Your task to perform on an android device: refresh tabs in the chrome app Image 0: 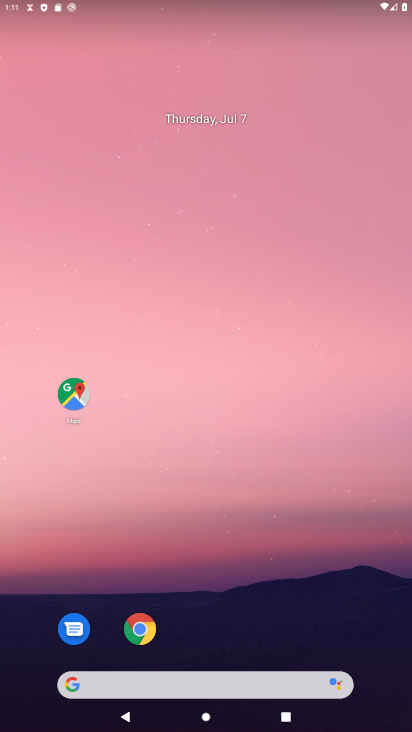
Step 0: drag from (241, 621) to (248, 110)
Your task to perform on an android device: refresh tabs in the chrome app Image 1: 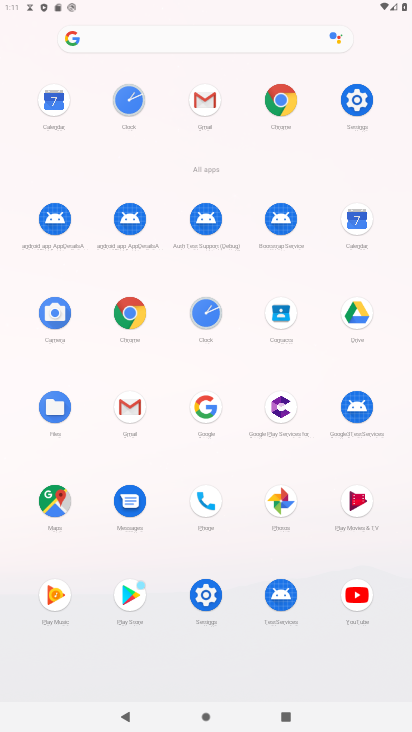
Step 1: click (129, 315)
Your task to perform on an android device: refresh tabs in the chrome app Image 2: 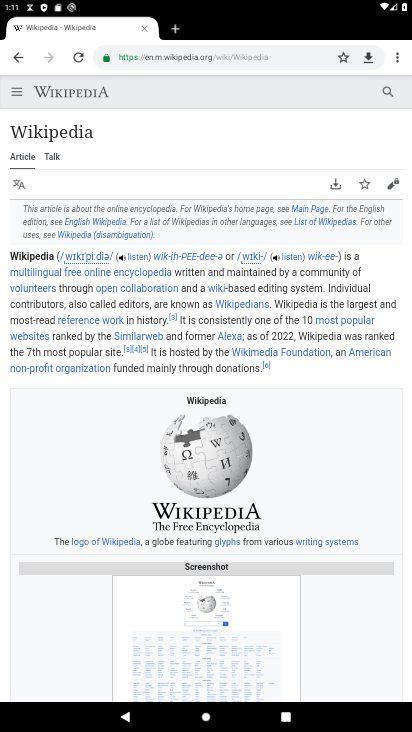
Step 2: click (75, 53)
Your task to perform on an android device: refresh tabs in the chrome app Image 3: 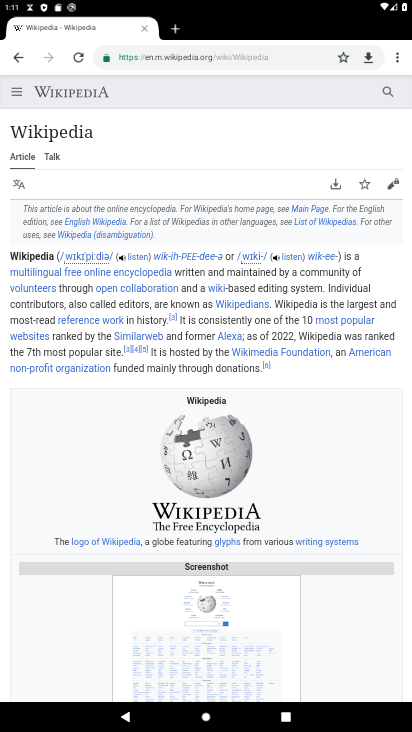
Step 3: task complete